Your task to perform on an android device: open app "Facebook Lite" Image 0: 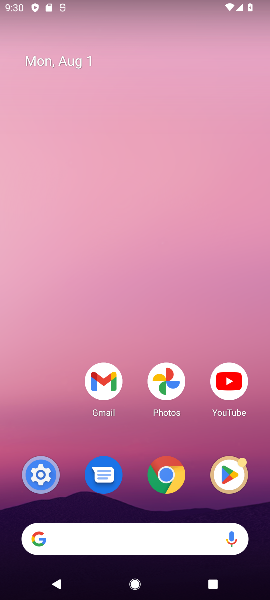
Step 0: drag from (137, 495) to (137, 123)
Your task to perform on an android device: open app "Facebook Lite" Image 1: 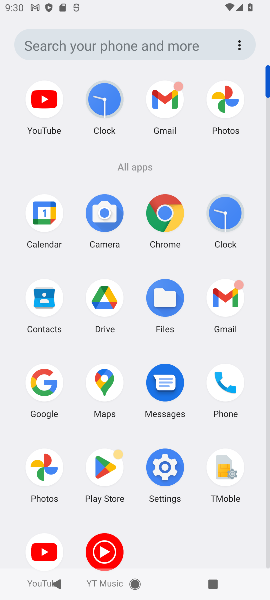
Step 1: click (107, 471)
Your task to perform on an android device: open app "Facebook Lite" Image 2: 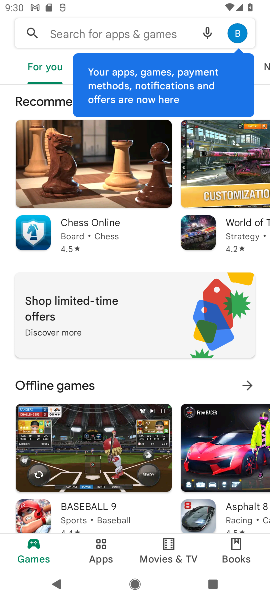
Step 2: click (112, 38)
Your task to perform on an android device: open app "Facebook Lite" Image 3: 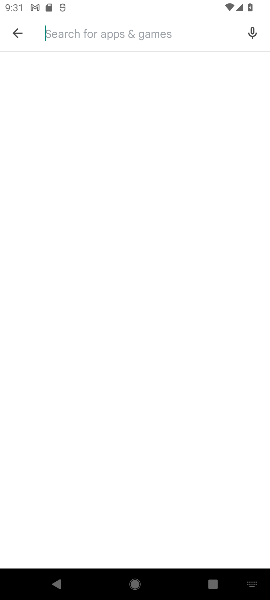
Step 3: type "Facebook Lite"
Your task to perform on an android device: open app "Facebook Lite" Image 4: 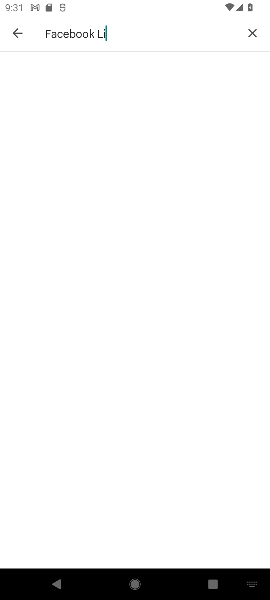
Step 4: type ""
Your task to perform on an android device: open app "Facebook Lite" Image 5: 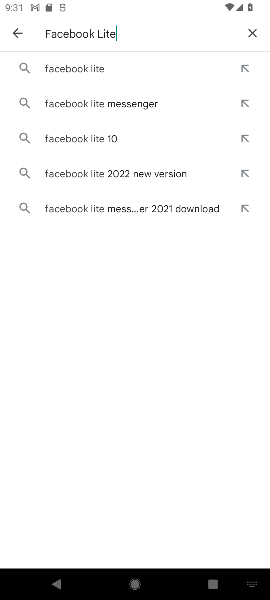
Step 5: click (73, 63)
Your task to perform on an android device: open app "Facebook Lite" Image 6: 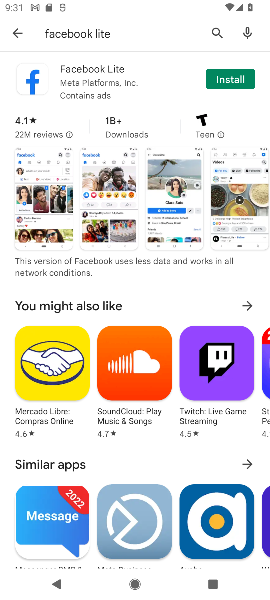
Step 6: click (123, 83)
Your task to perform on an android device: open app "Facebook Lite" Image 7: 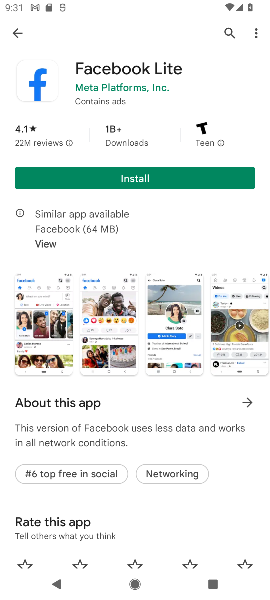
Step 7: task complete